Your task to perform on an android device: allow cookies in the chrome app Image 0: 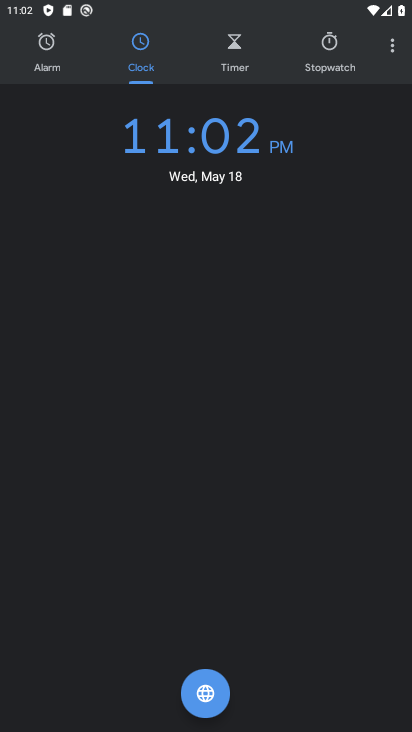
Step 0: press home button
Your task to perform on an android device: allow cookies in the chrome app Image 1: 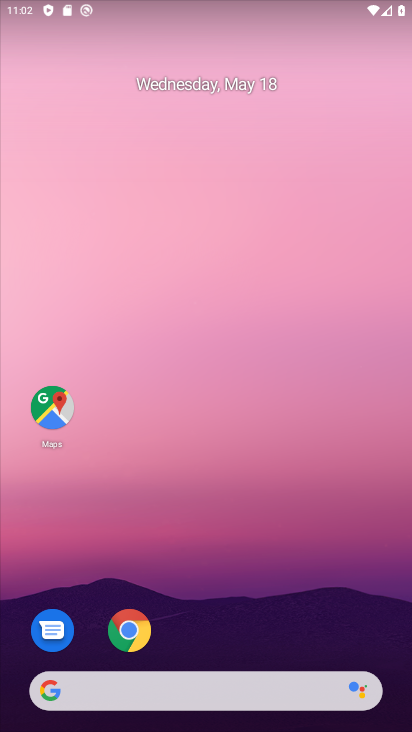
Step 1: click (134, 631)
Your task to perform on an android device: allow cookies in the chrome app Image 2: 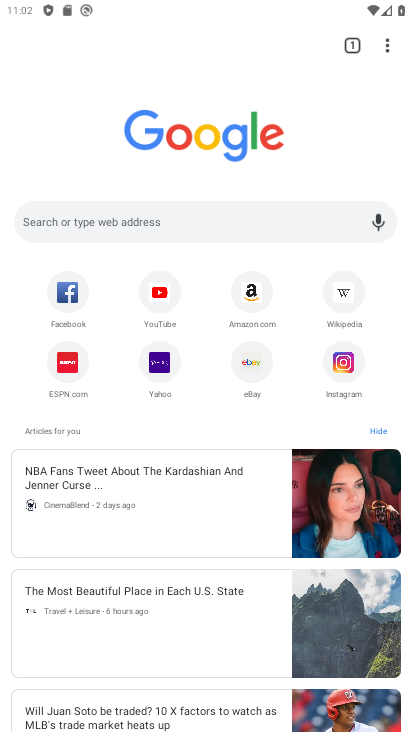
Step 2: click (391, 40)
Your task to perform on an android device: allow cookies in the chrome app Image 3: 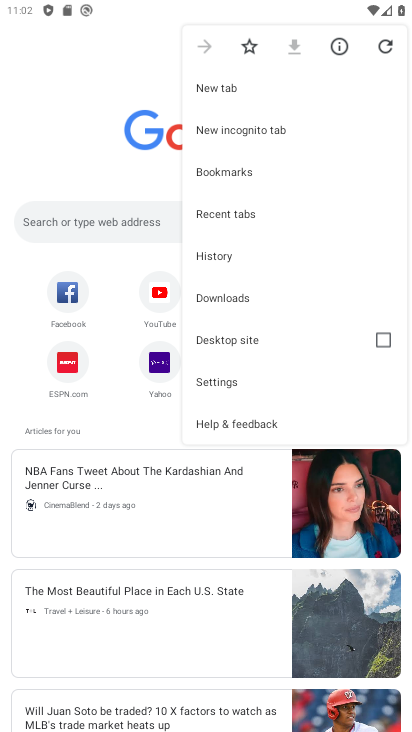
Step 3: click (238, 382)
Your task to perform on an android device: allow cookies in the chrome app Image 4: 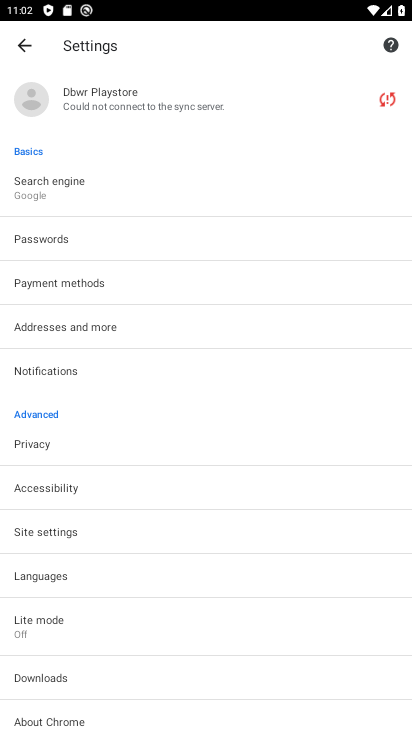
Step 4: click (59, 536)
Your task to perform on an android device: allow cookies in the chrome app Image 5: 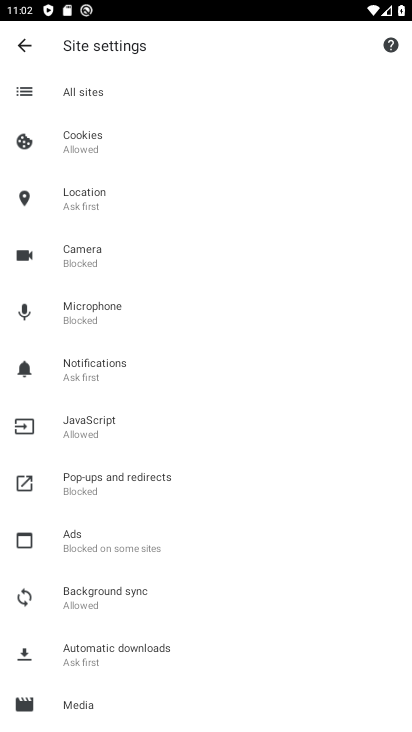
Step 5: task complete